Your task to perform on an android device: Do I have any events this weekend? Image 0: 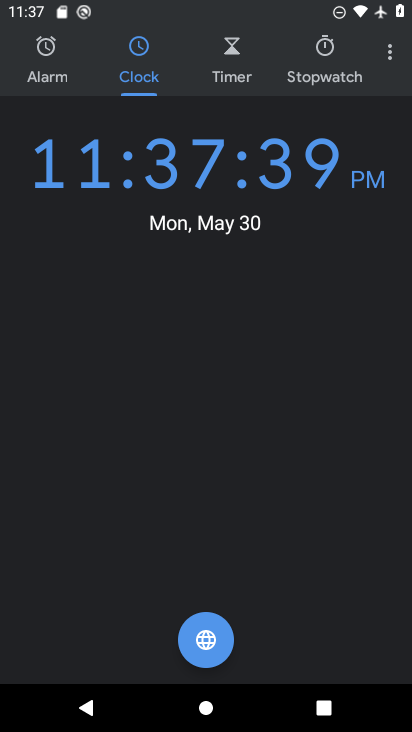
Step 0: press home button
Your task to perform on an android device: Do I have any events this weekend? Image 1: 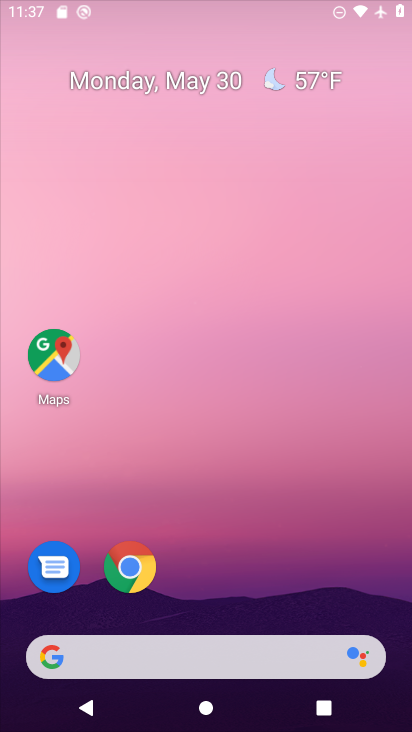
Step 1: drag from (191, 585) to (157, 129)
Your task to perform on an android device: Do I have any events this weekend? Image 2: 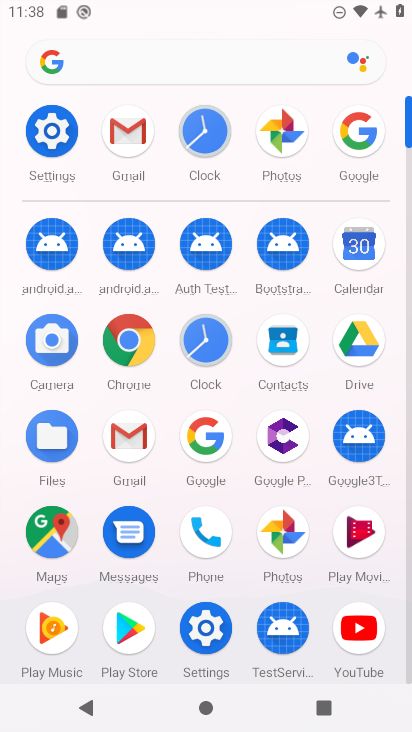
Step 2: click (345, 255)
Your task to perform on an android device: Do I have any events this weekend? Image 3: 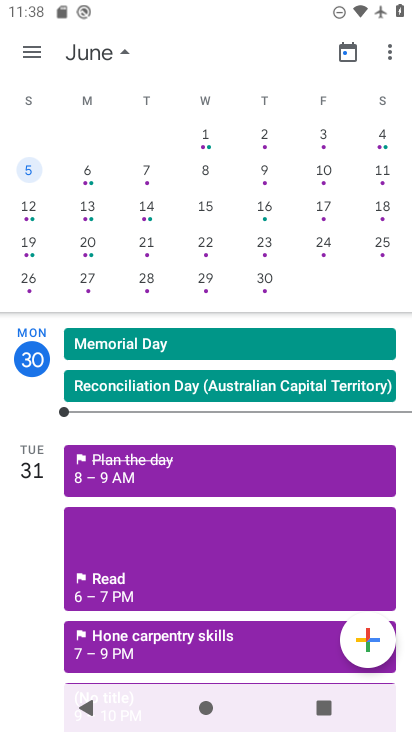
Step 3: click (376, 132)
Your task to perform on an android device: Do I have any events this weekend? Image 4: 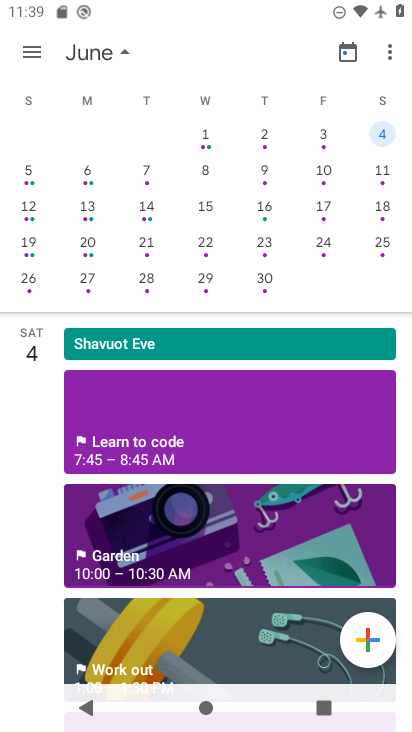
Step 4: task complete